Your task to perform on an android device: Open the stopwatch Image 0: 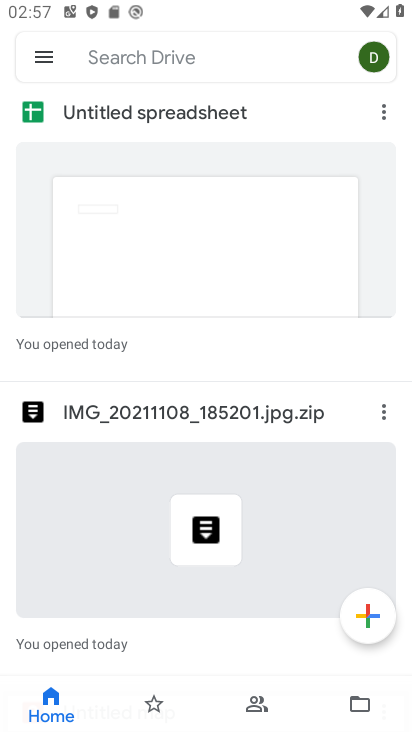
Step 0: press home button
Your task to perform on an android device: Open the stopwatch Image 1: 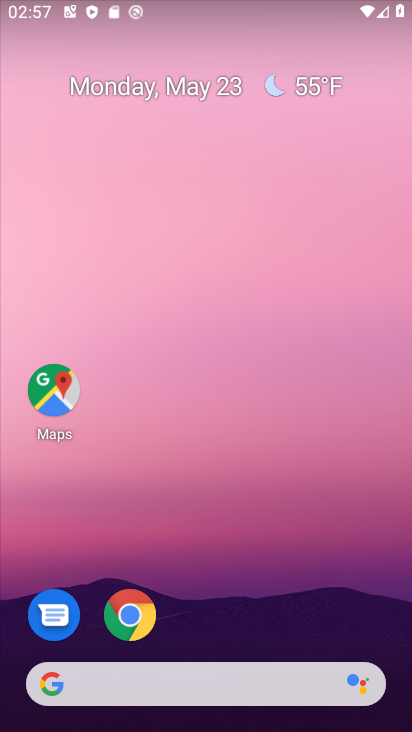
Step 1: drag from (362, 611) to (345, 202)
Your task to perform on an android device: Open the stopwatch Image 2: 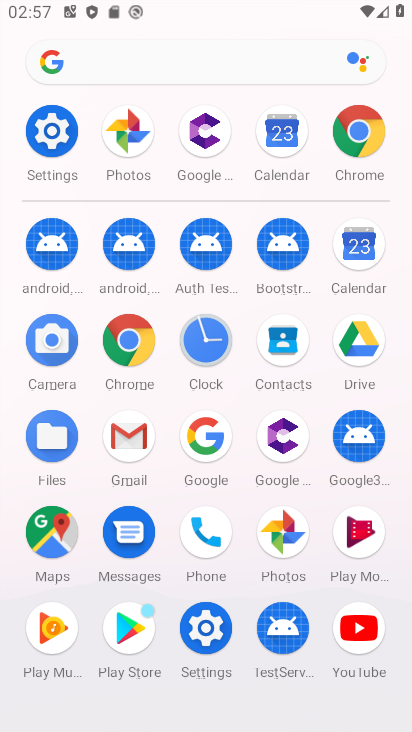
Step 2: click (211, 342)
Your task to perform on an android device: Open the stopwatch Image 3: 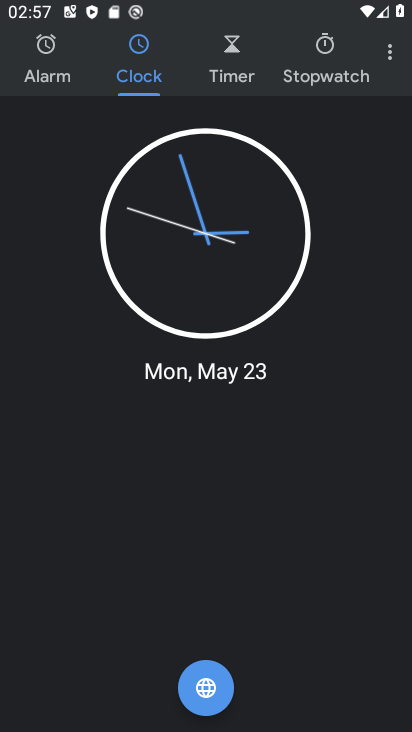
Step 3: click (335, 69)
Your task to perform on an android device: Open the stopwatch Image 4: 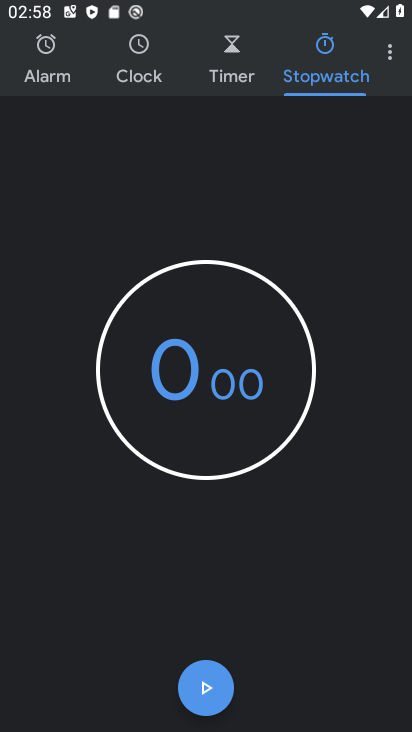
Step 4: task complete